Your task to perform on an android device: Go to battery settings Image 0: 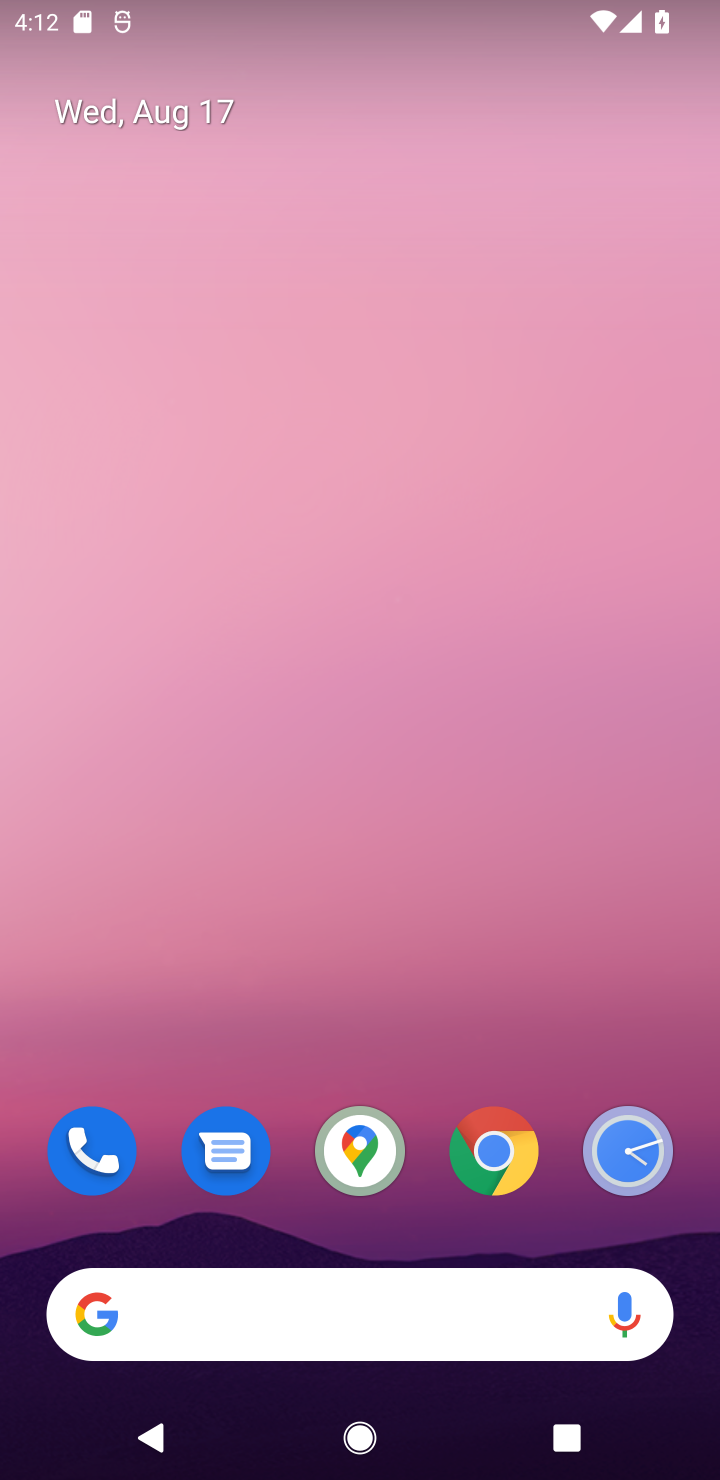
Step 0: drag from (421, 1221) to (394, 162)
Your task to perform on an android device: Go to battery settings Image 1: 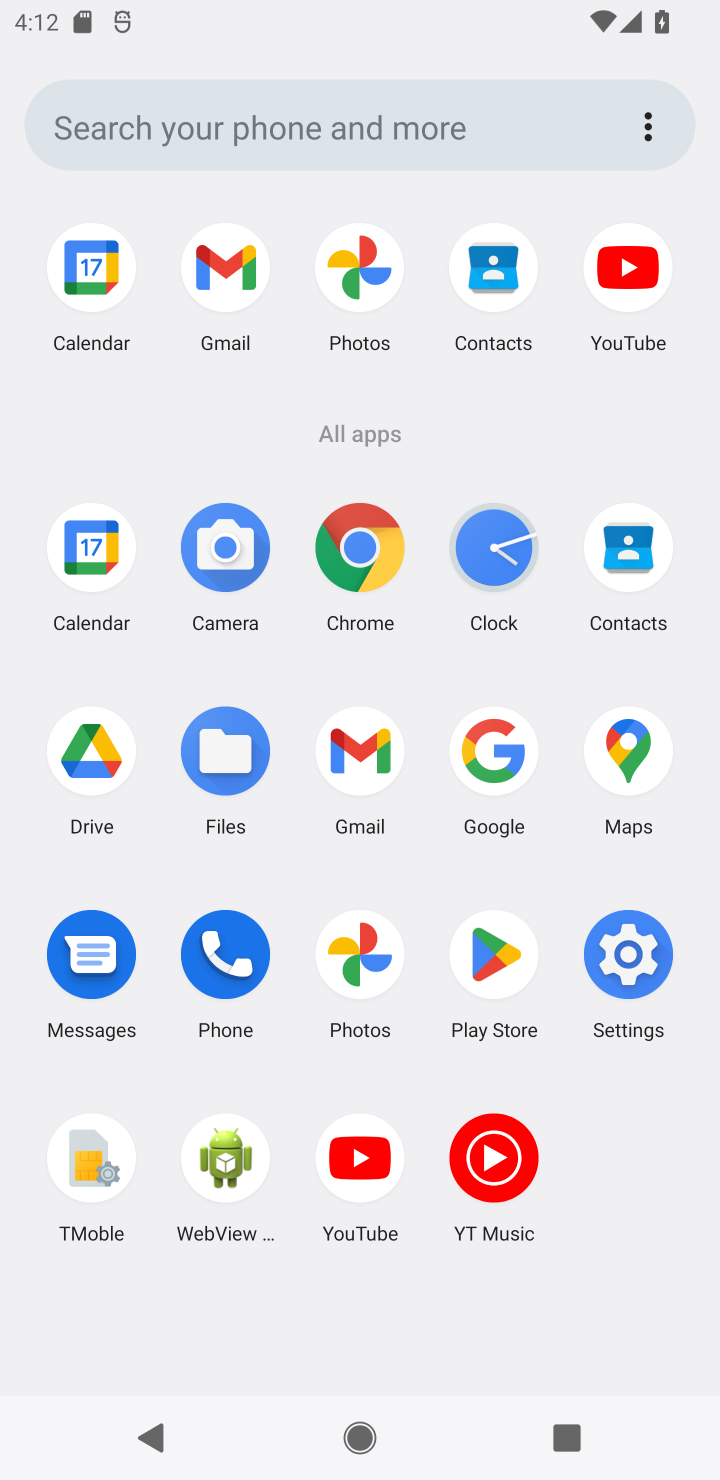
Step 1: click (639, 969)
Your task to perform on an android device: Go to battery settings Image 2: 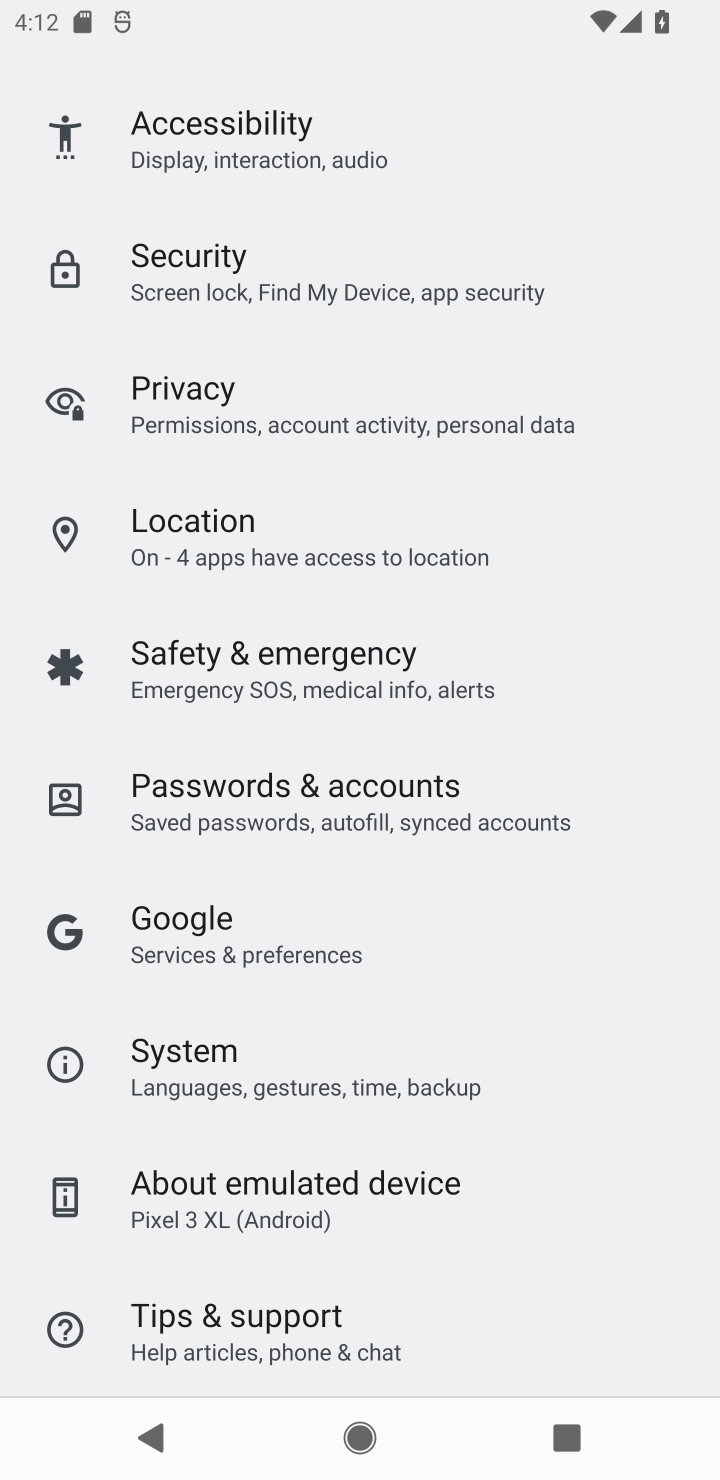
Step 2: drag from (265, 338) to (422, 897)
Your task to perform on an android device: Go to battery settings Image 3: 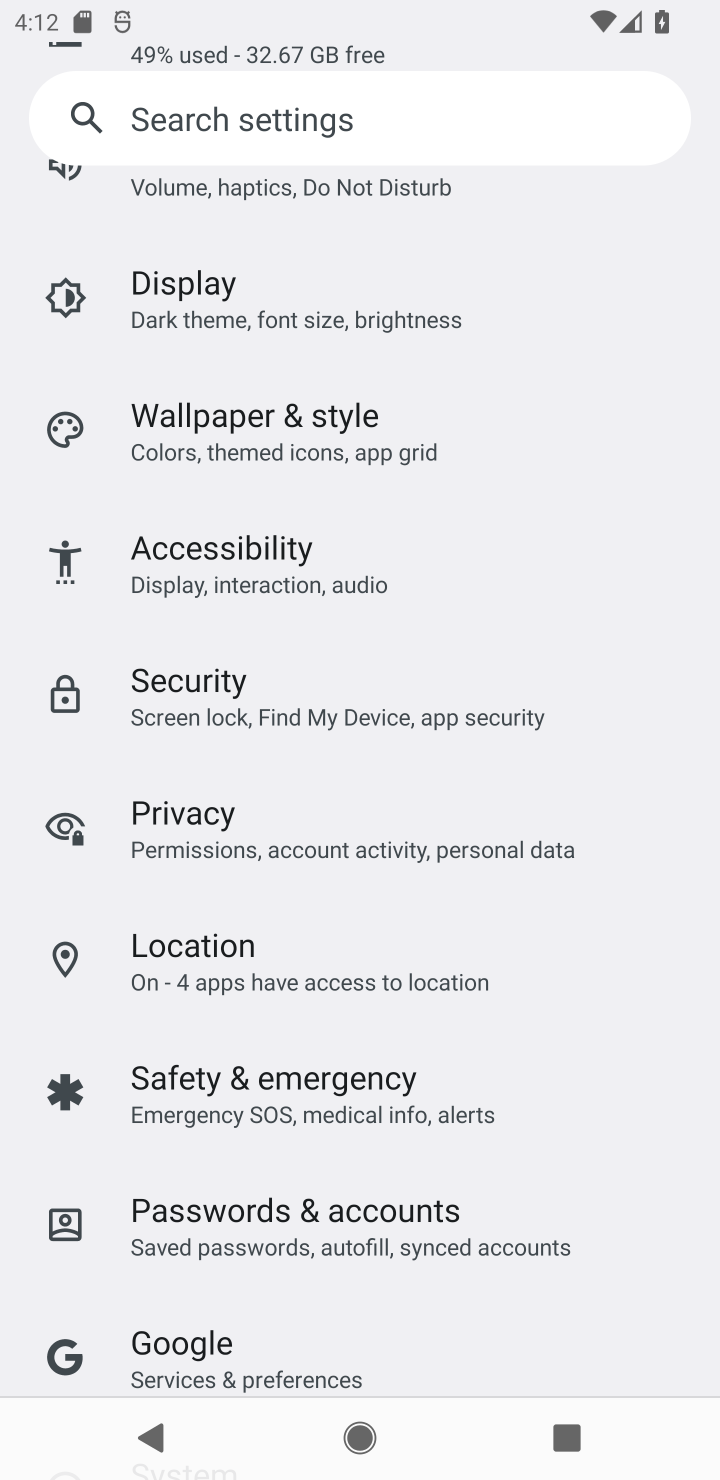
Step 3: drag from (341, 340) to (461, 1089)
Your task to perform on an android device: Go to battery settings Image 4: 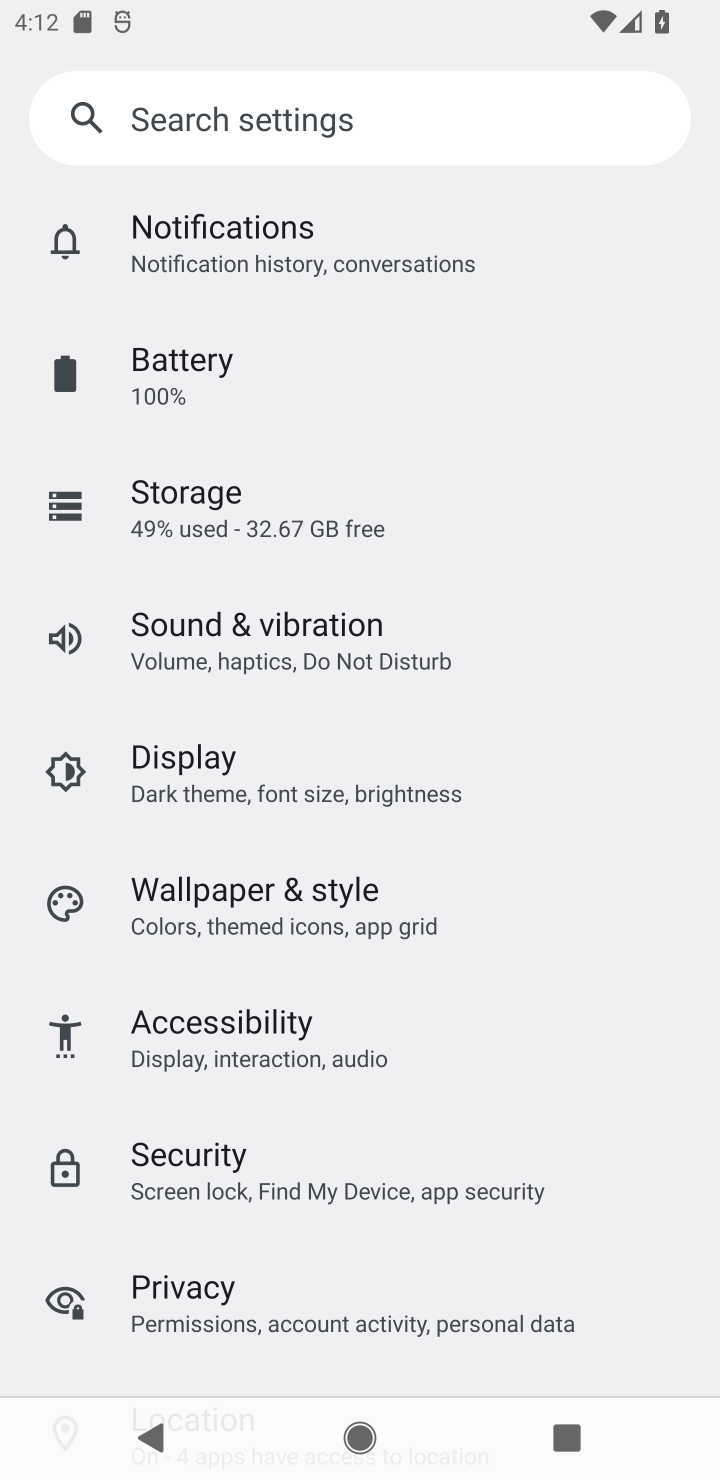
Step 4: click (270, 371)
Your task to perform on an android device: Go to battery settings Image 5: 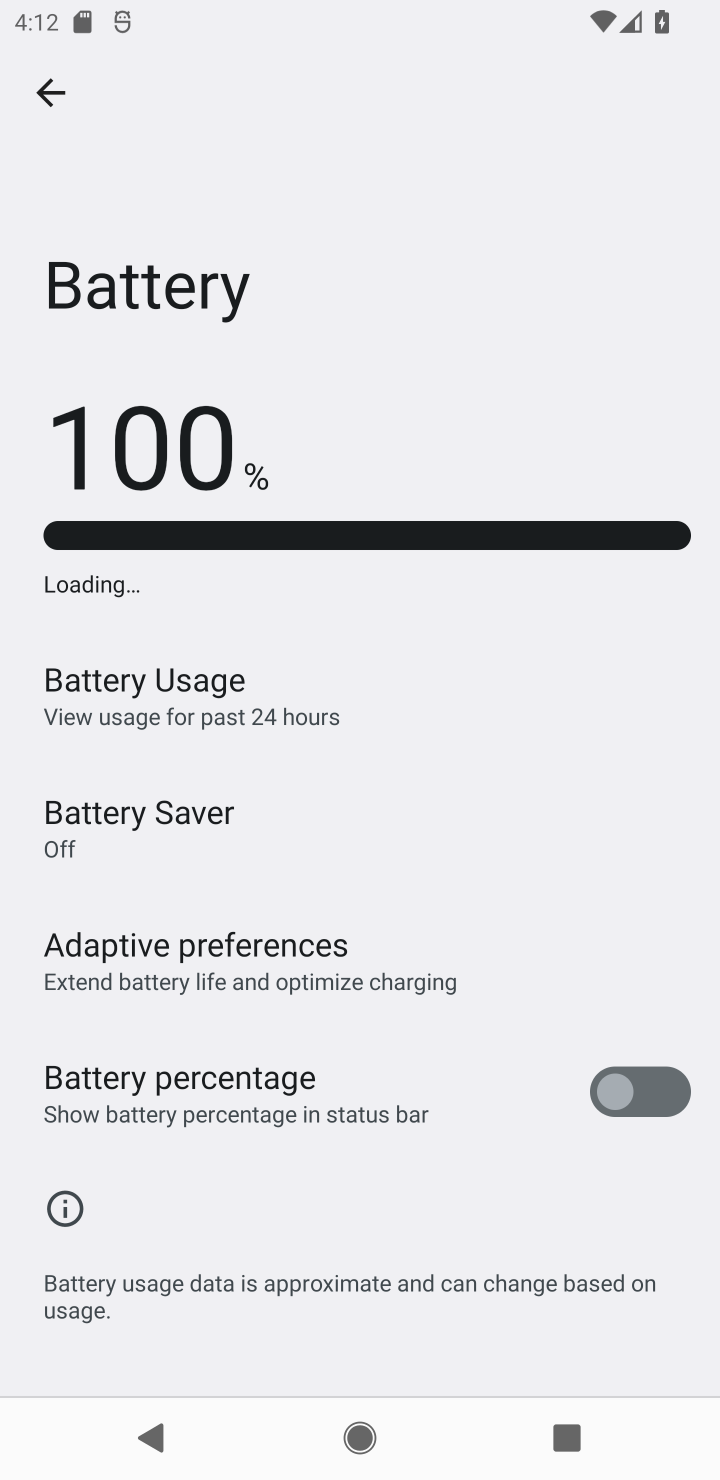
Step 5: task complete